Your task to perform on an android device: turn off notifications in google photos Image 0: 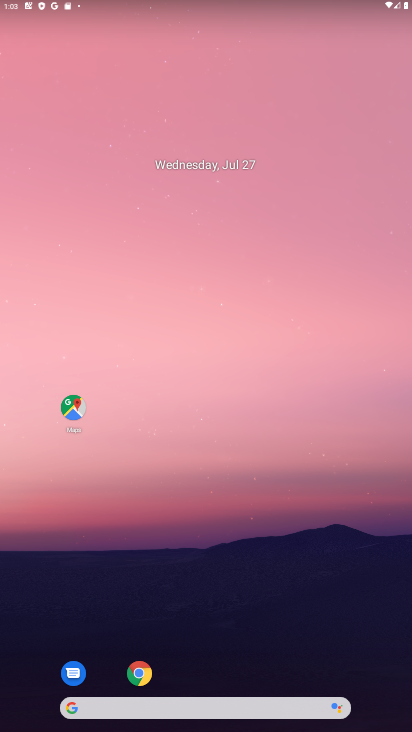
Step 0: drag from (238, 686) to (284, 3)
Your task to perform on an android device: turn off notifications in google photos Image 1: 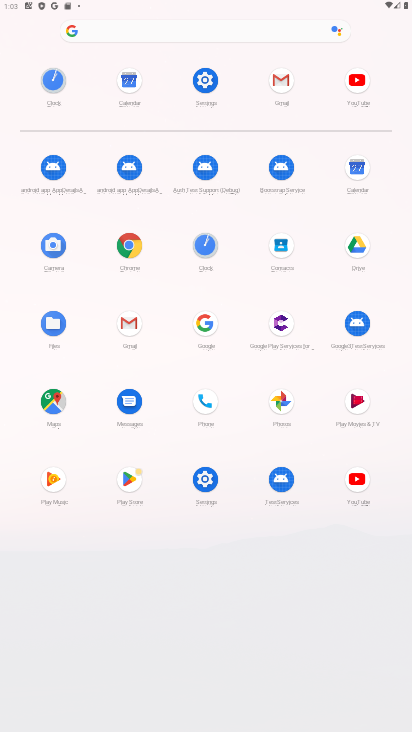
Step 1: click (284, 395)
Your task to perform on an android device: turn off notifications in google photos Image 2: 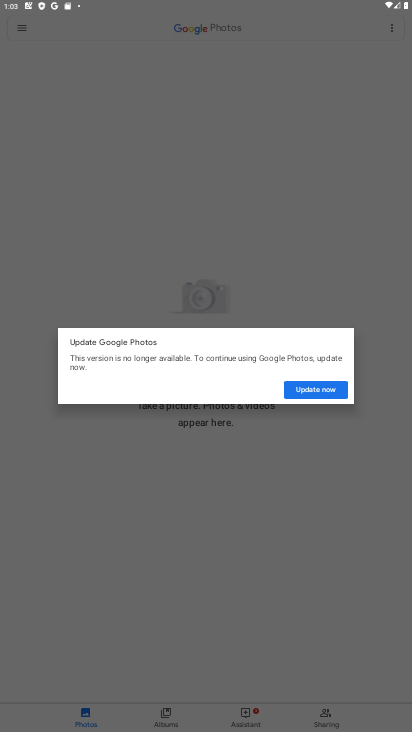
Step 2: click (318, 393)
Your task to perform on an android device: turn off notifications in google photos Image 3: 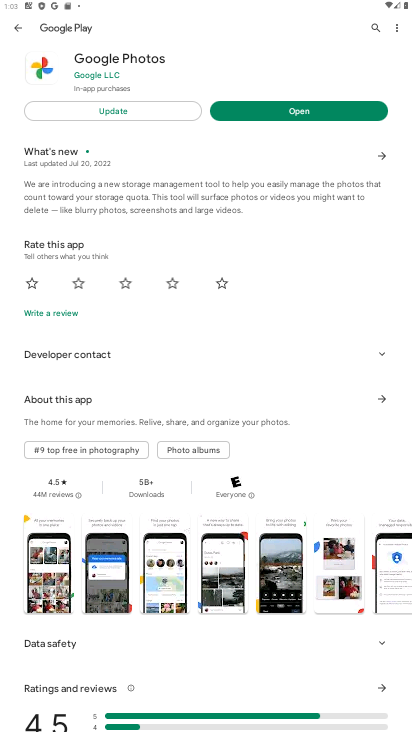
Step 3: click (259, 111)
Your task to perform on an android device: turn off notifications in google photos Image 4: 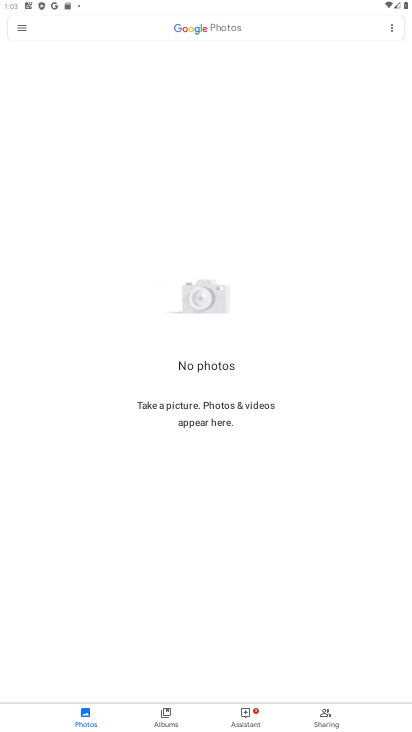
Step 4: click (23, 31)
Your task to perform on an android device: turn off notifications in google photos Image 5: 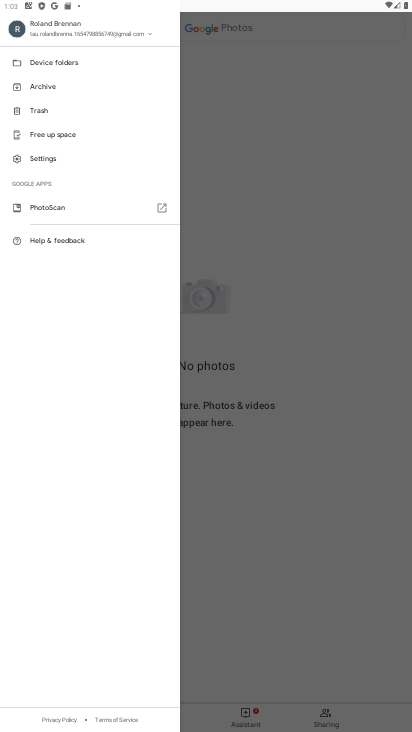
Step 5: click (32, 160)
Your task to perform on an android device: turn off notifications in google photos Image 6: 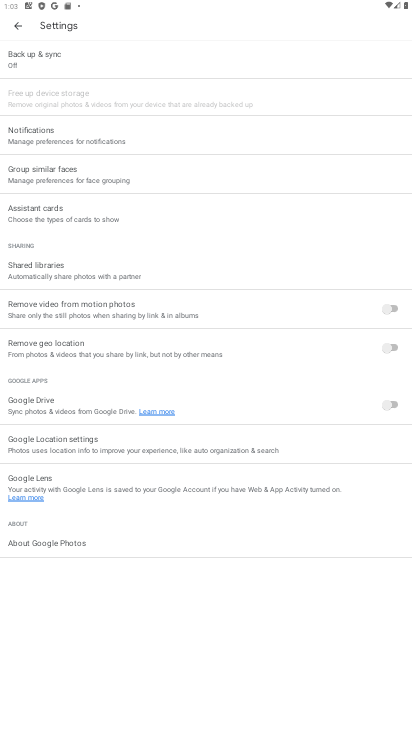
Step 6: click (39, 146)
Your task to perform on an android device: turn off notifications in google photos Image 7: 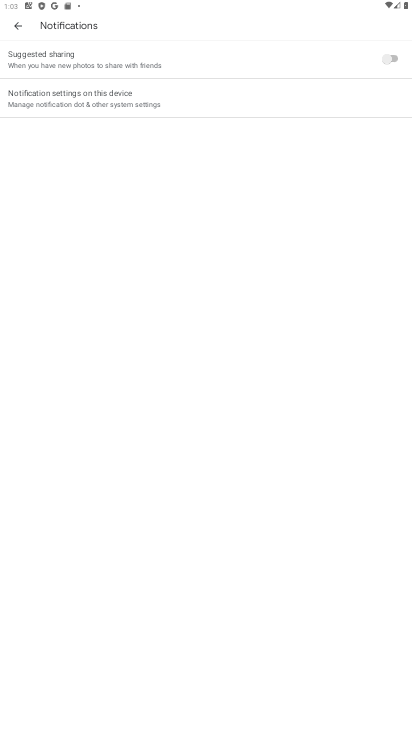
Step 7: click (57, 110)
Your task to perform on an android device: turn off notifications in google photos Image 8: 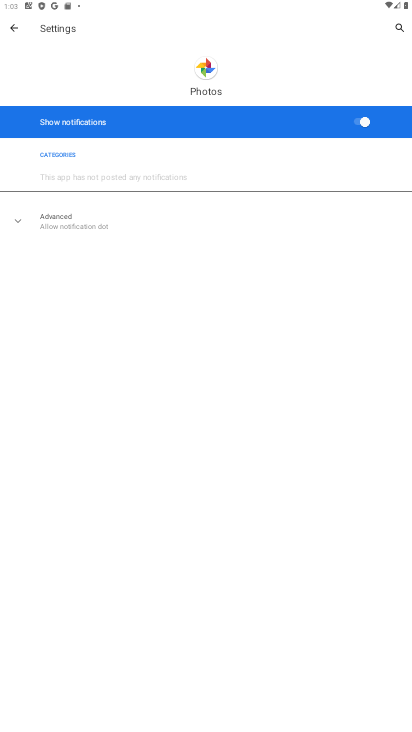
Step 8: click (361, 131)
Your task to perform on an android device: turn off notifications in google photos Image 9: 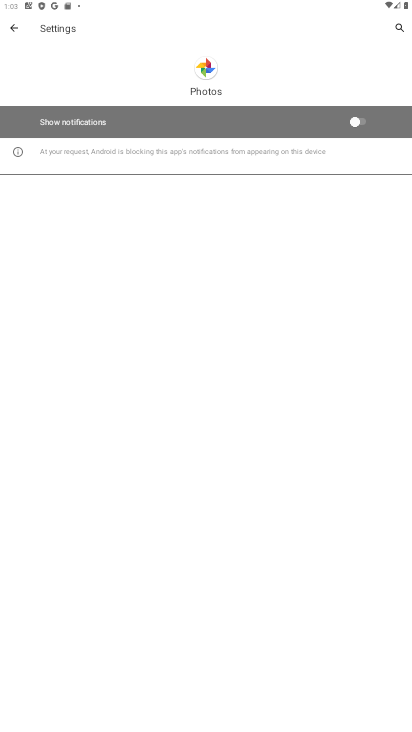
Step 9: task complete